Your task to perform on an android device: What's the weather? Image 0: 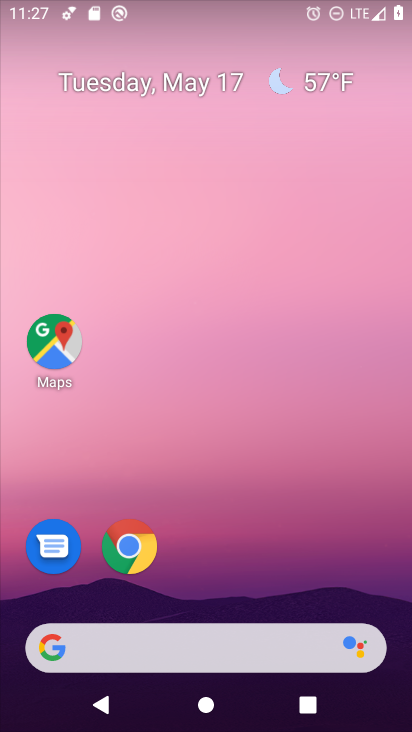
Step 0: click (322, 86)
Your task to perform on an android device: What's the weather? Image 1: 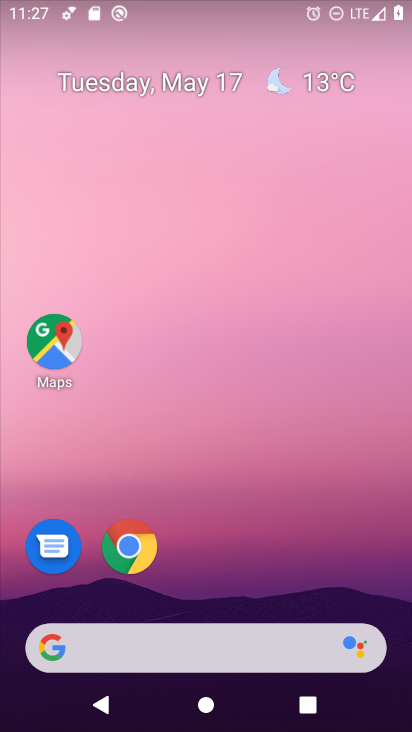
Step 1: click (317, 90)
Your task to perform on an android device: What's the weather? Image 2: 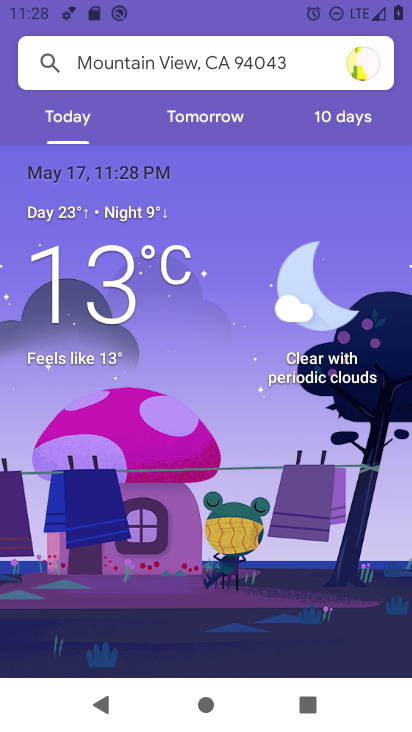
Step 2: task complete